Your task to perform on an android device: toggle airplane mode Image 0: 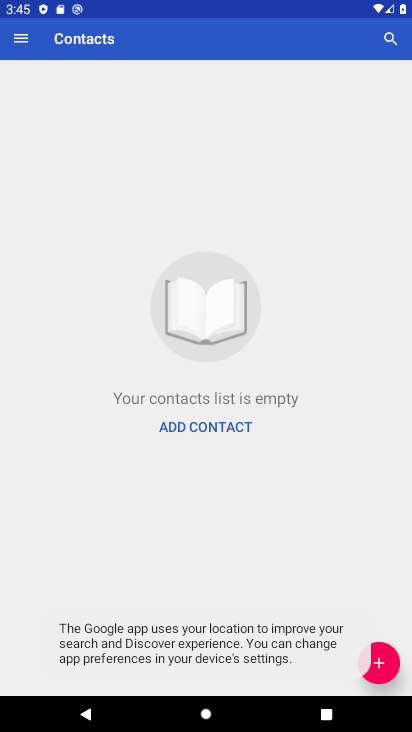
Step 0: click (137, 605)
Your task to perform on an android device: toggle airplane mode Image 1: 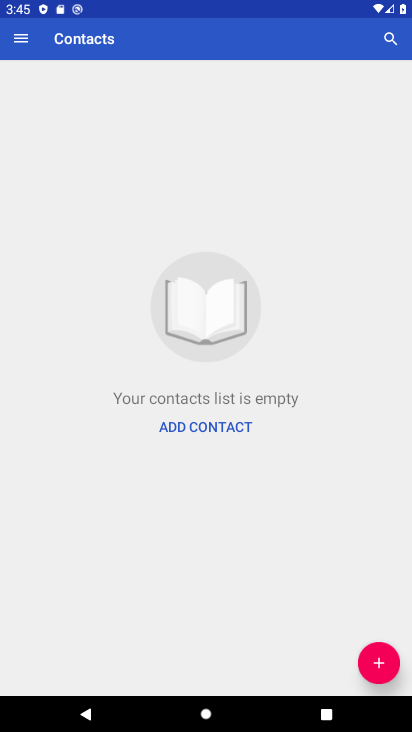
Step 1: click (23, 37)
Your task to perform on an android device: toggle airplane mode Image 2: 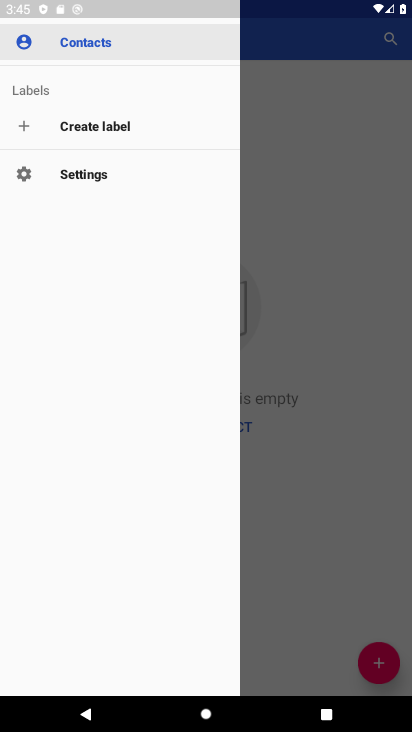
Step 2: drag from (353, 2) to (259, 305)
Your task to perform on an android device: toggle airplane mode Image 3: 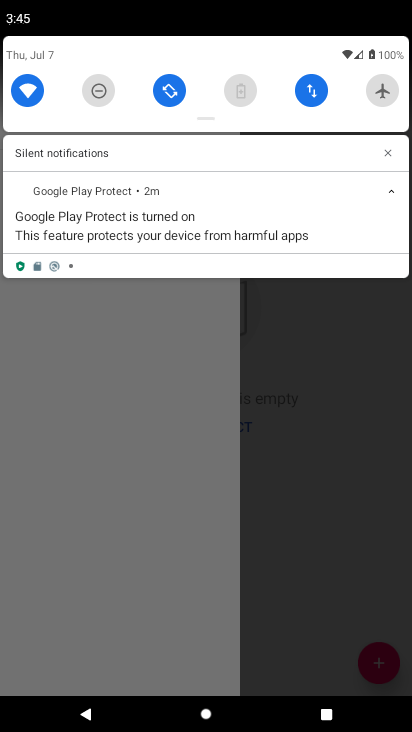
Step 3: click (259, 305)
Your task to perform on an android device: toggle airplane mode Image 4: 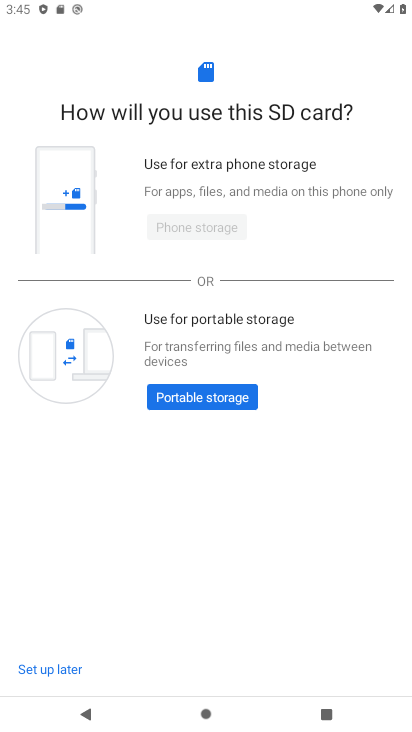
Step 4: drag from (374, 8) to (280, 641)
Your task to perform on an android device: toggle airplane mode Image 5: 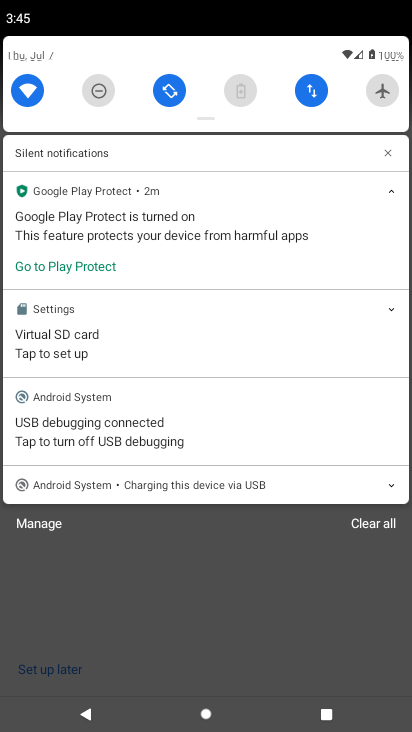
Step 5: click (369, 90)
Your task to perform on an android device: toggle airplane mode Image 6: 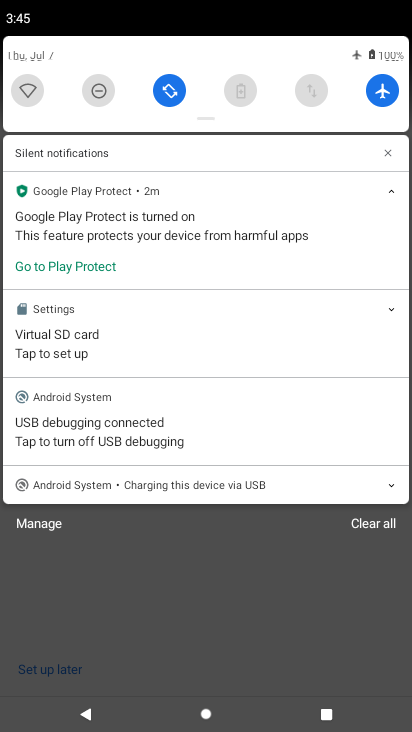
Step 6: task complete